Your task to perform on an android device: Open Chrome and go to settings Image 0: 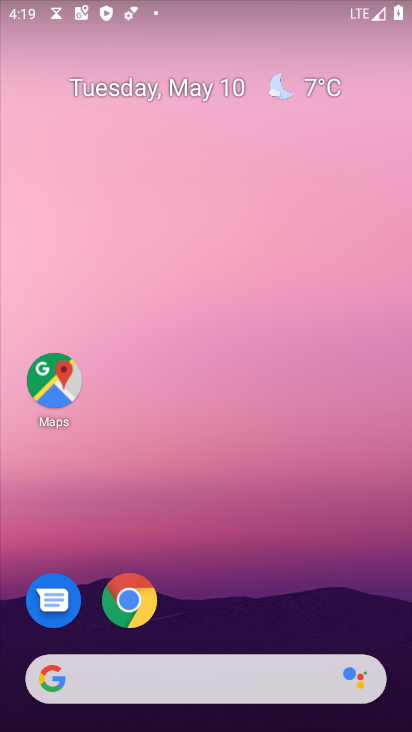
Step 0: click (125, 600)
Your task to perform on an android device: Open Chrome and go to settings Image 1: 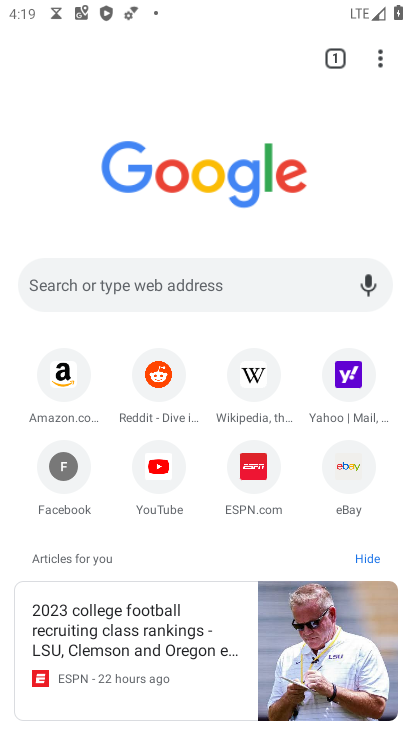
Step 1: click (381, 54)
Your task to perform on an android device: Open Chrome and go to settings Image 2: 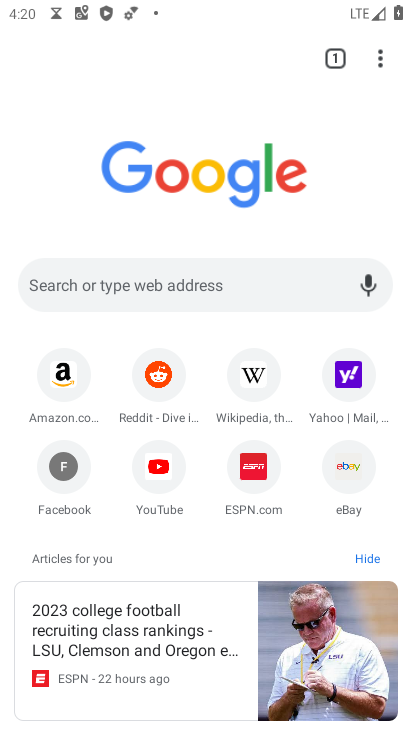
Step 2: click (377, 55)
Your task to perform on an android device: Open Chrome and go to settings Image 3: 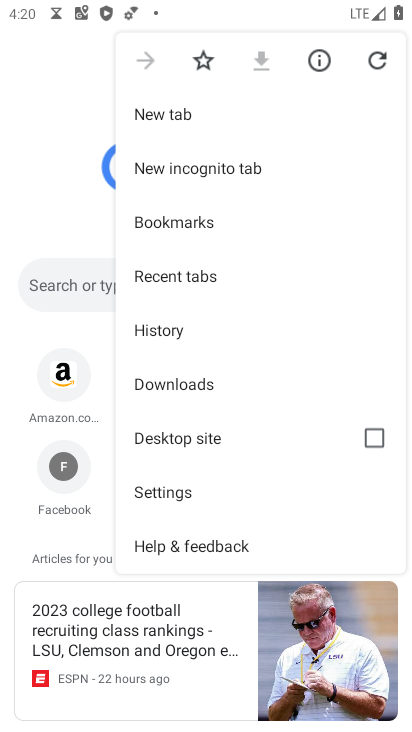
Step 3: click (207, 484)
Your task to perform on an android device: Open Chrome and go to settings Image 4: 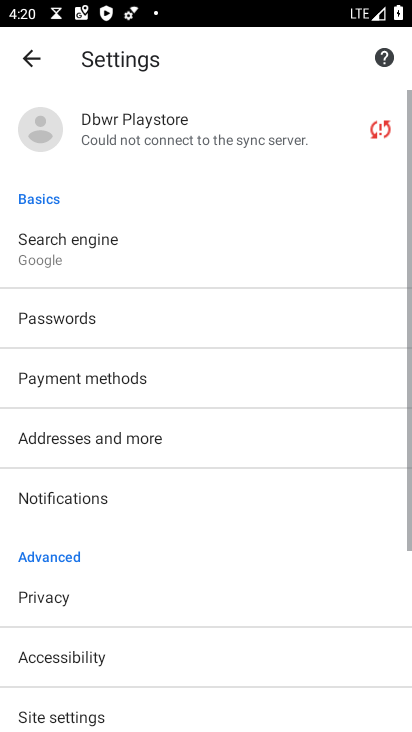
Step 4: drag from (168, 635) to (181, 174)
Your task to perform on an android device: Open Chrome and go to settings Image 5: 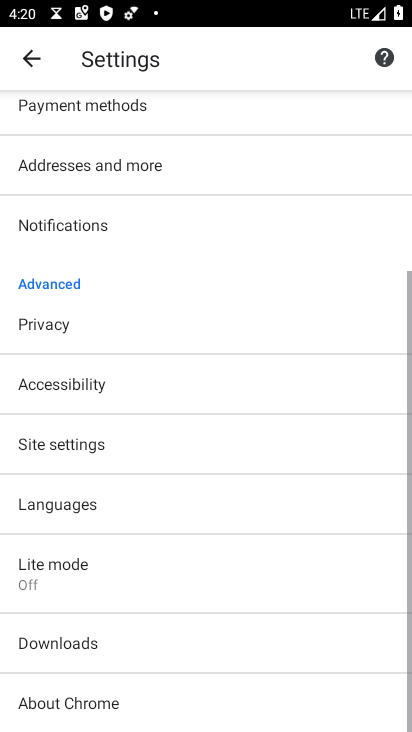
Step 5: drag from (232, 560) to (291, 86)
Your task to perform on an android device: Open Chrome and go to settings Image 6: 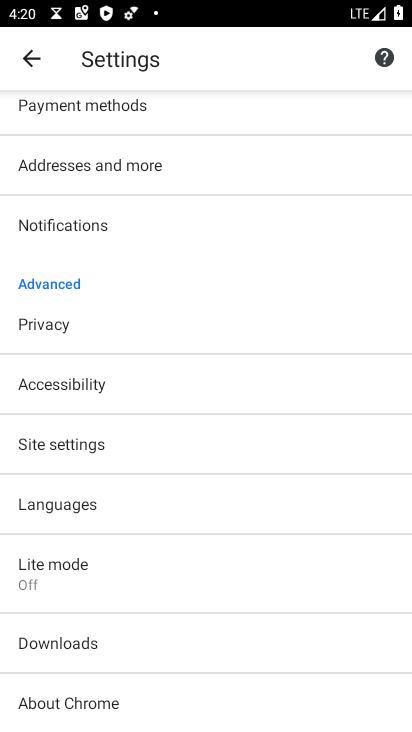
Step 6: click (273, 442)
Your task to perform on an android device: Open Chrome and go to settings Image 7: 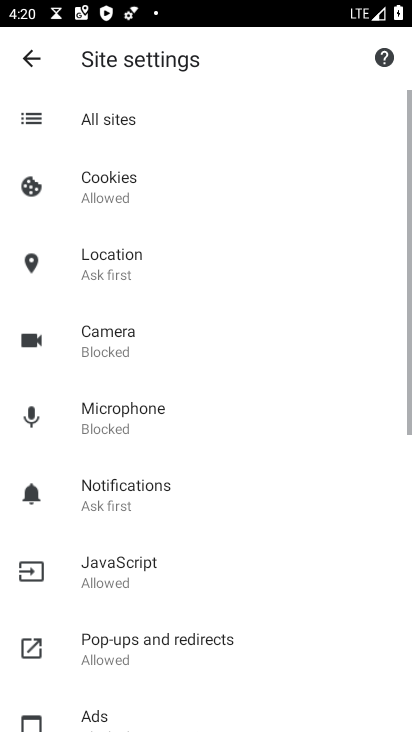
Step 7: task complete